Your task to perform on an android device: Open calendar and show me the first week of next month Image 0: 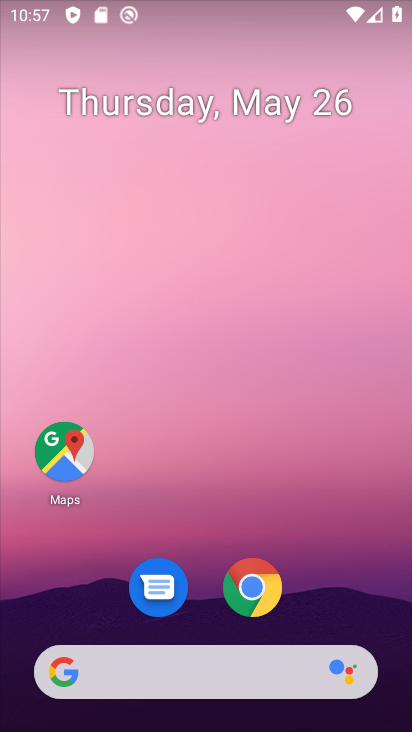
Step 0: drag from (250, 704) to (332, 204)
Your task to perform on an android device: Open calendar and show me the first week of next month Image 1: 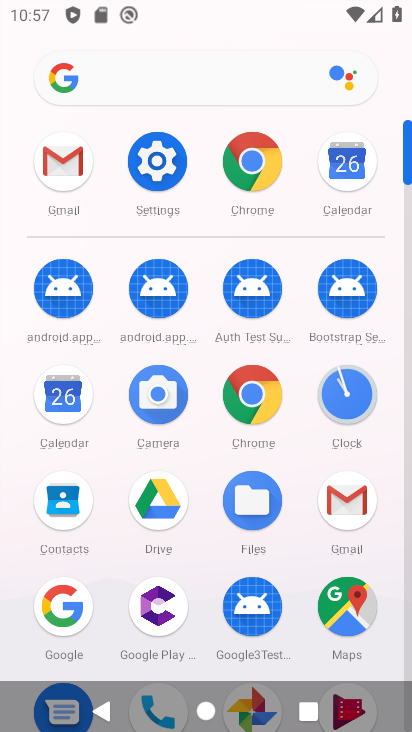
Step 1: click (349, 180)
Your task to perform on an android device: Open calendar and show me the first week of next month Image 2: 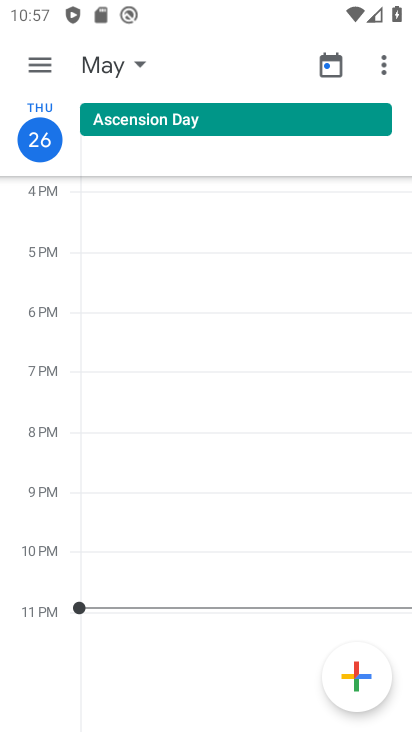
Step 2: click (40, 74)
Your task to perform on an android device: Open calendar and show me the first week of next month Image 3: 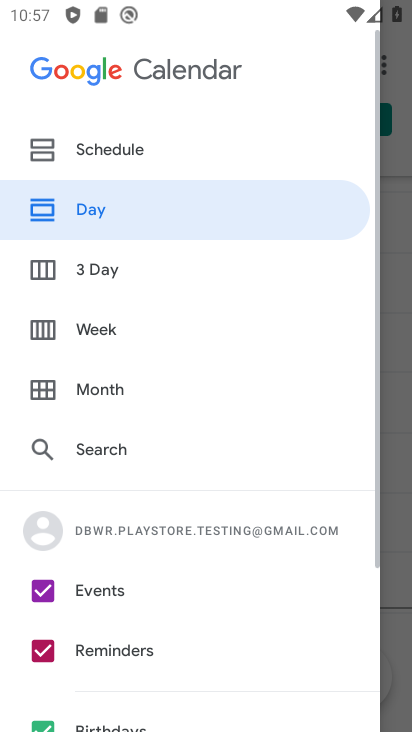
Step 3: click (89, 374)
Your task to perform on an android device: Open calendar and show me the first week of next month Image 4: 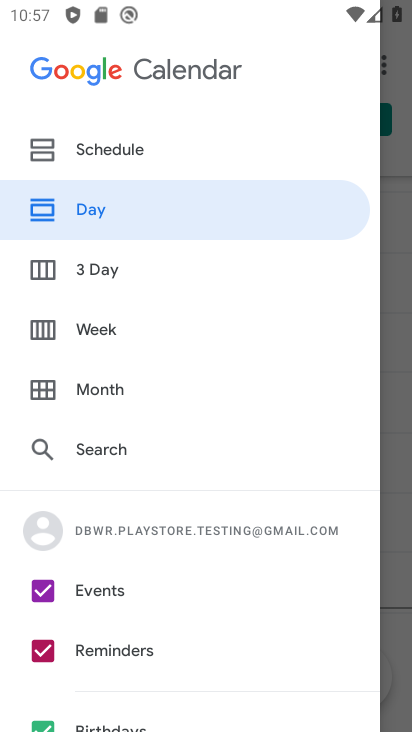
Step 4: click (106, 395)
Your task to perform on an android device: Open calendar and show me the first week of next month Image 5: 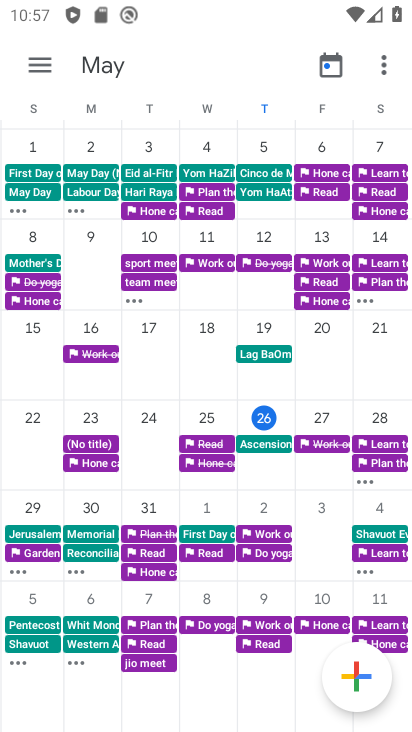
Step 5: drag from (335, 357) to (10, 396)
Your task to perform on an android device: Open calendar and show me the first week of next month Image 6: 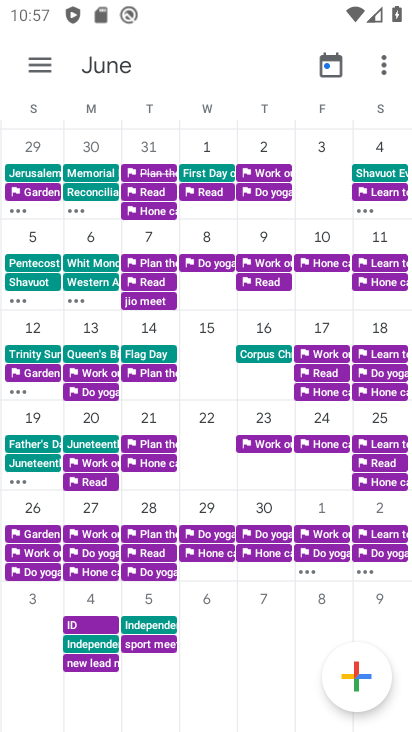
Step 6: click (202, 148)
Your task to perform on an android device: Open calendar and show me the first week of next month Image 7: 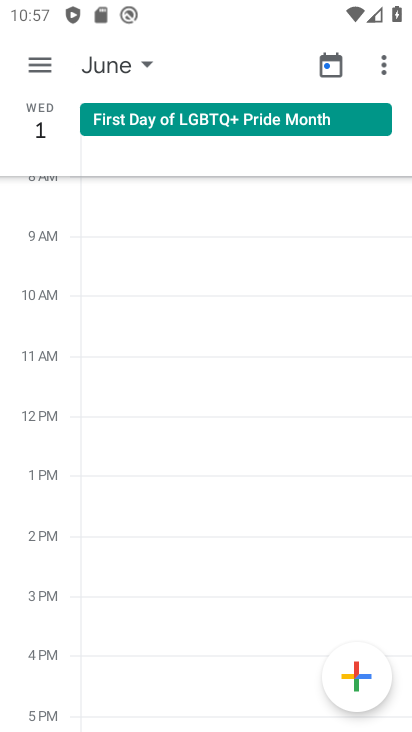
Step 7: task complete